Your task to perform on an android device: remove spam from my inbox in the gmail app Image 0: 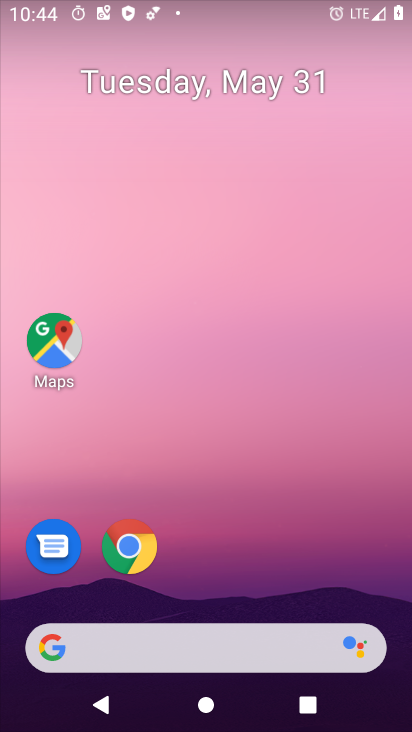
Step 0: drag from (278, 652) to (279, 5)
Your task to perform on an android device: remove spam from my inbox in the gmail app Image 1: 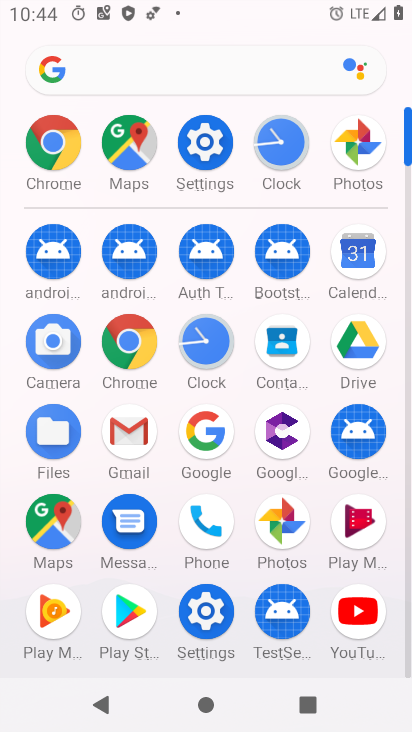
Step 1: click (142, 436)
Your task to perform on an android device: remove spam from my inbox in the gmail app Image 2: 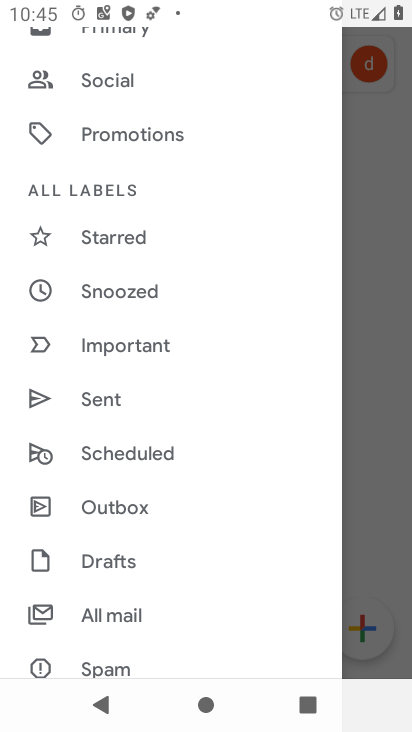
Step 2: click (127, 664)
Your task to perform on an android device: remove spam from my inbox in the gmail app Image 3: 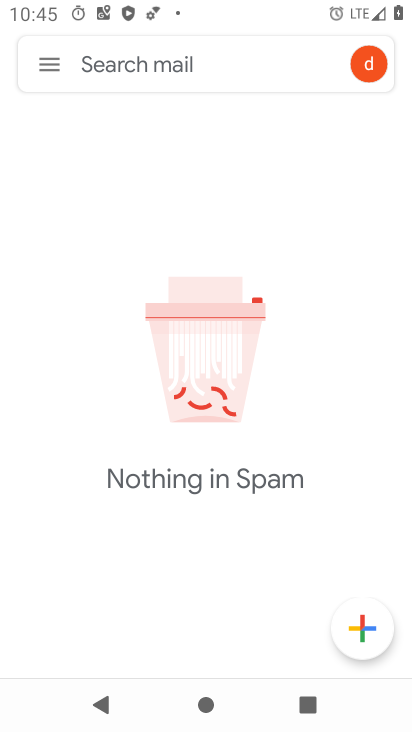
Step 3: task complete